Your task to perform on an android device: Set the phone to "Do not disturb". Image 0: 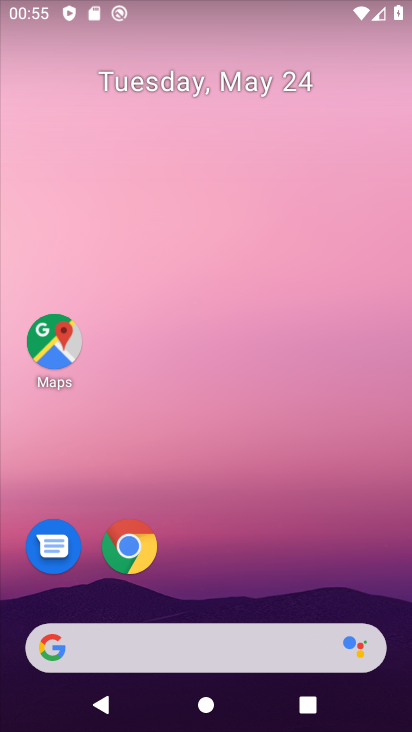
Step 0: drag from (317, 652) to (333, 42)
Your task to perform on an android device: Set the phone to "Do not disturb". Image 1: 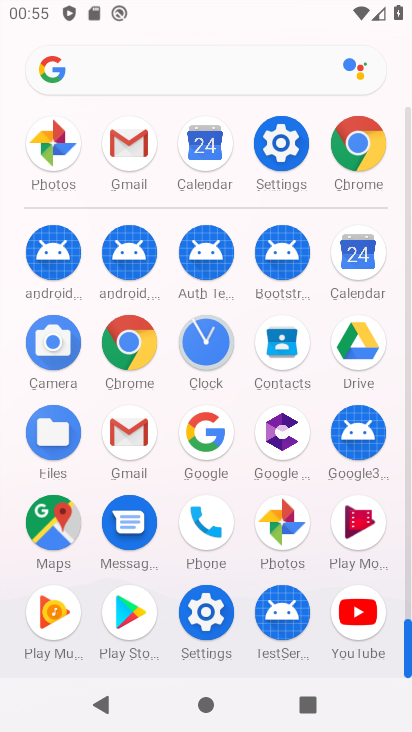
Step 1: click (275, 145)
Your task to perform on an android device: Set the phone to "Do not disturb". Image 2: 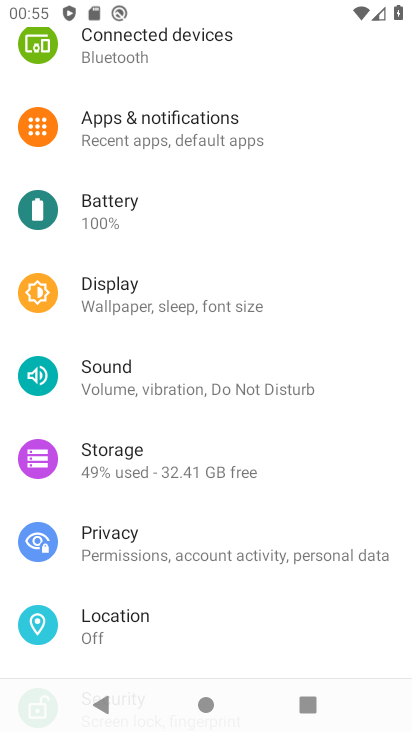
Step 2: click (108, 367)
Your task to perform on an android device: Set the phone to "Do not disturb". Image 3: 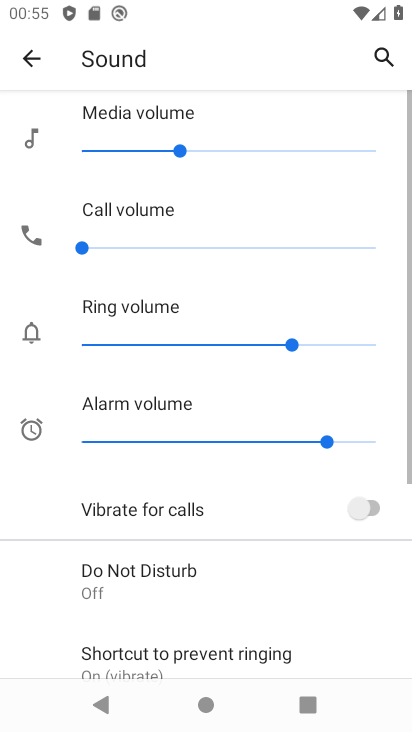
Step 3: click (185, 589)
Your task to perform on an android device: Set the phone to "Do not disturb". Image 4: 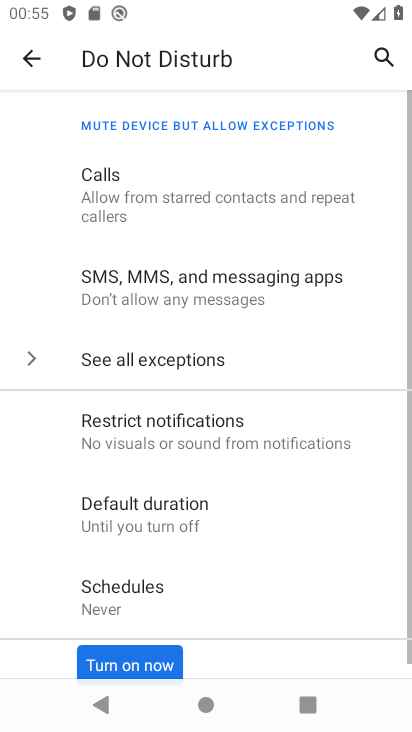
Step 4: click (164, 656)
Your task to perform on an android device: Set the phone to "Do not disturb". Image 5: 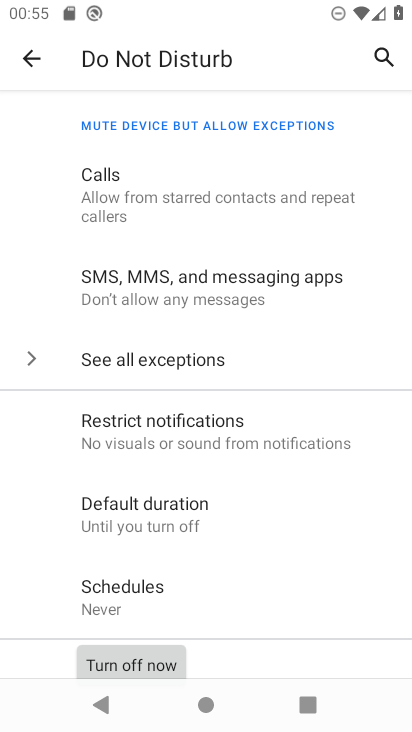
Step 5: task complete